Your task to perform on an android device: When is my next meeting? Image 0: 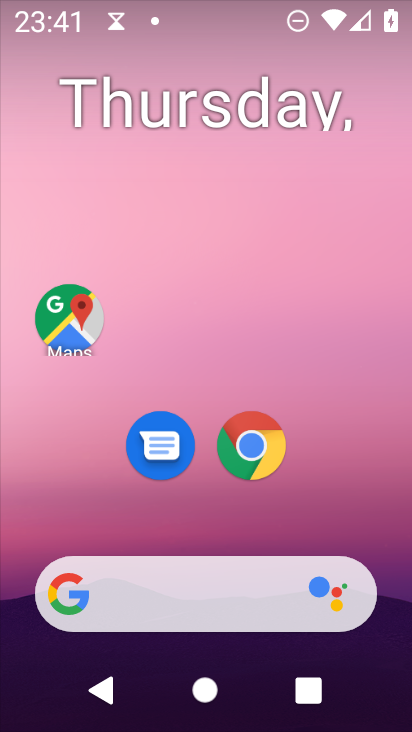
Step 0: drag from (220, 719) to (213, 109)
Your task to perform on an android device: When is my next meeting? Image 1: 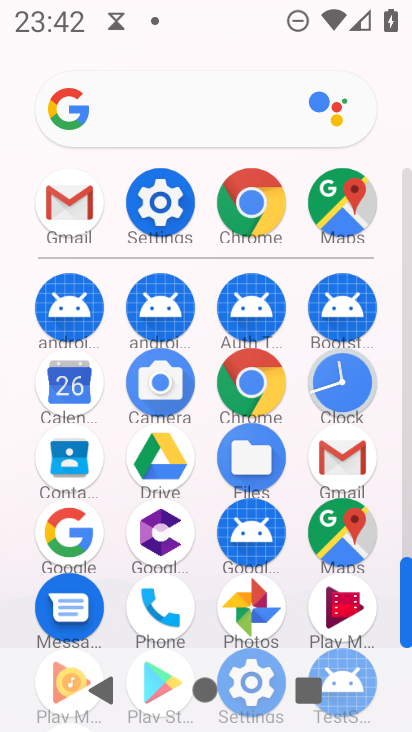
Step 1: click (71, 382)
Your task to perform on an android device: When is my next meeting? Image 2: 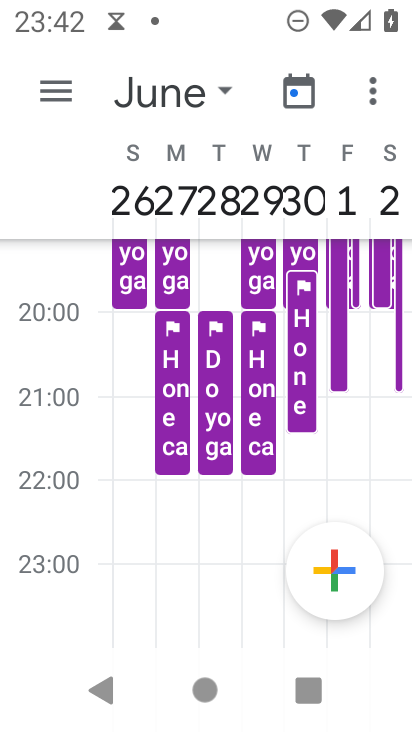
Step 2: click (51, 84)
Your task to perform on an android device: When is my next meeting? Image 3: 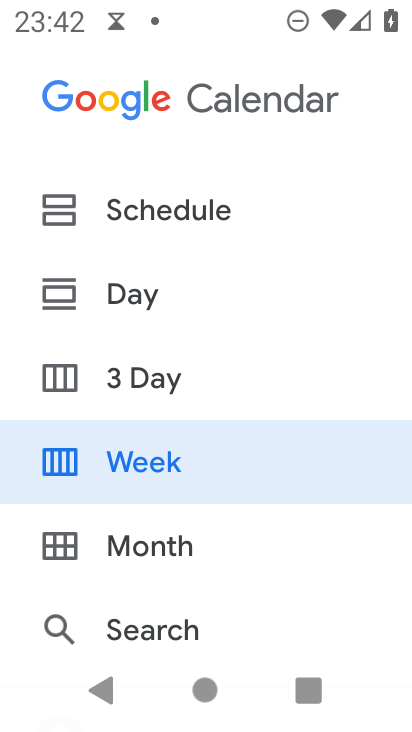
Step 3: drag from (162, 661) to (193, 144)
Your task to perform on an android device: When is my next meeting? Image 4: 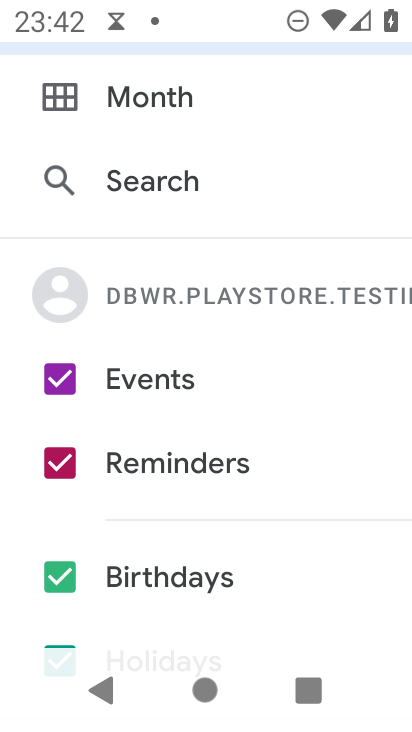
Step 4: drag from (269, 114) to (265, 513)
Your task to perform on an android device: When is my next meeting? Image 5: 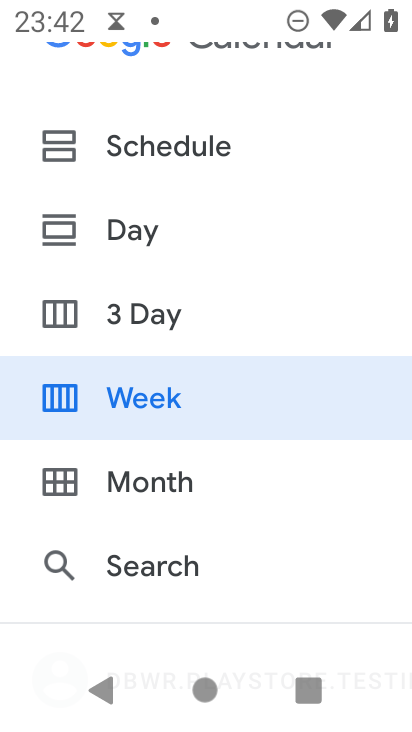
Step 5: click (171, 142)
Your task to perform on an android device: When is my next meeting? Image 6: 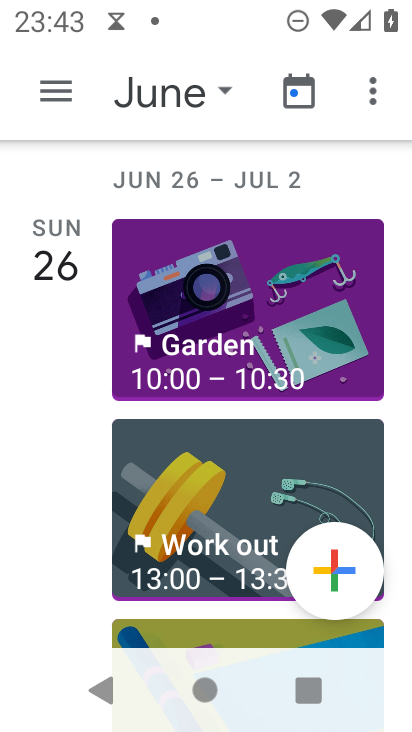
Step 6: click (221, 92)
Your task to perform on an android device: When is my next meeting? Image 7: 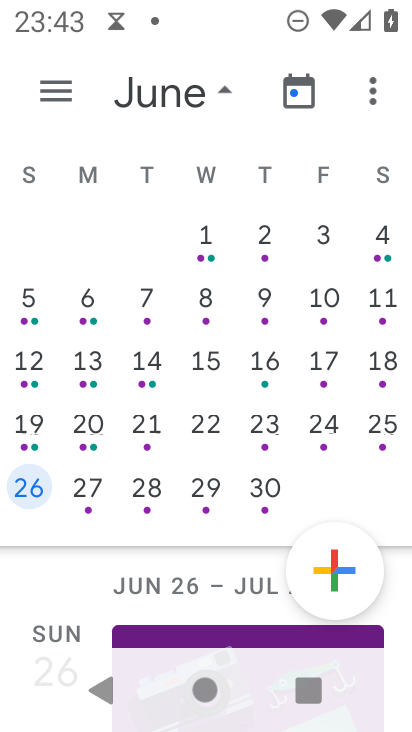
Step 7: click (87, 483)
Your task to perform on an android device: When is my next meeting? Image 8: 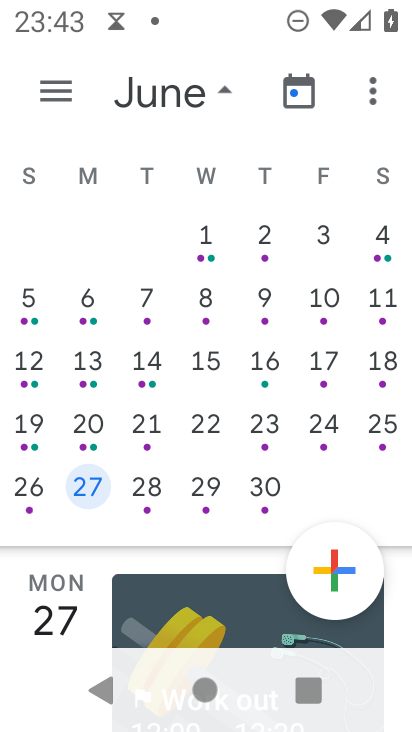
Step 8: click (224, 88)
Your task to perform on an android device: When is my next meeting? Image 9: 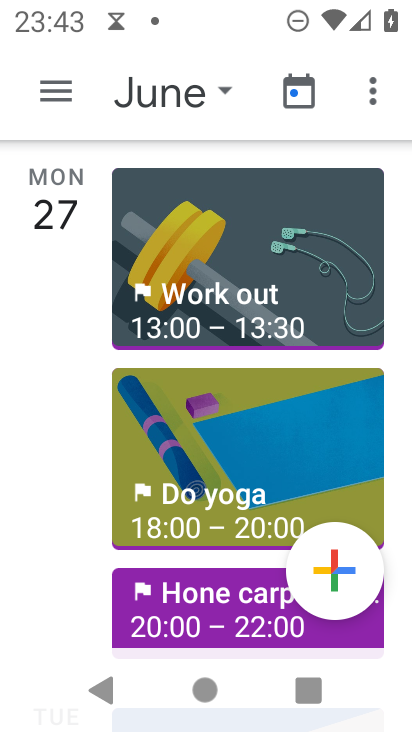
Step 9: task complete